Your task to perform on an android device: Open Yahoo.com Image 0: 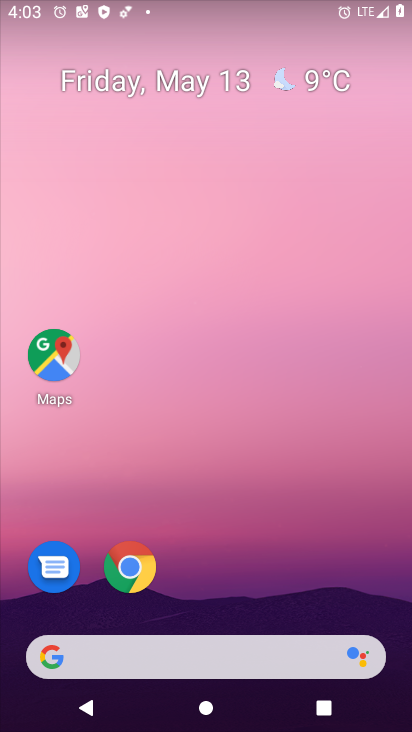
Step 0: click (136, 566)
Your task to perform on an android device: Open Yahoo.com Image 1: 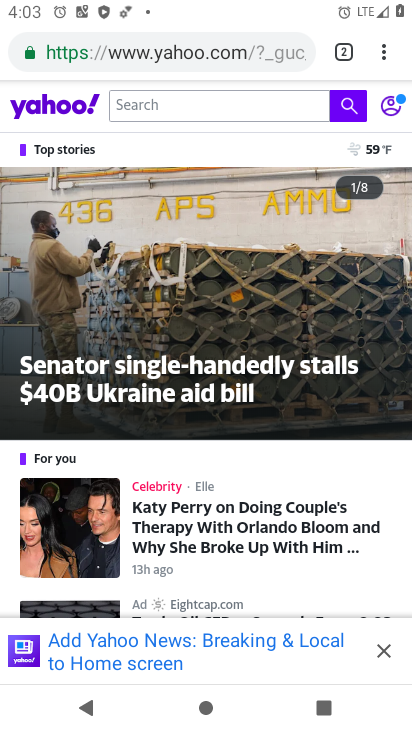
Step 1: task complete